Your task to perform on an android device: change the upload size in google photos Image 0: 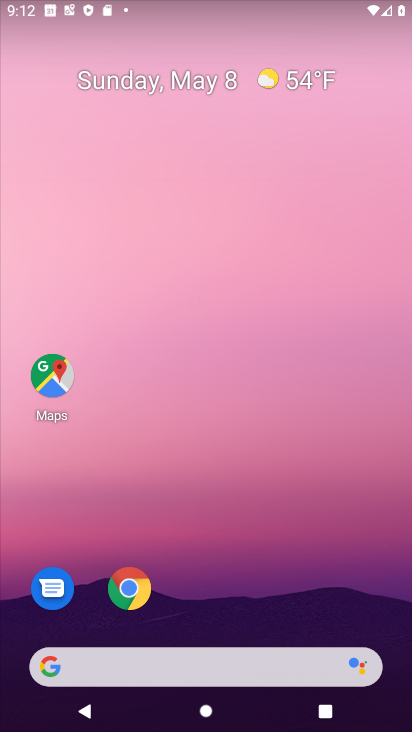
Step 0: drag from (2, 663) to (241, 126)
Your task to perform on an android device: change the upload size in google photos Image 1: 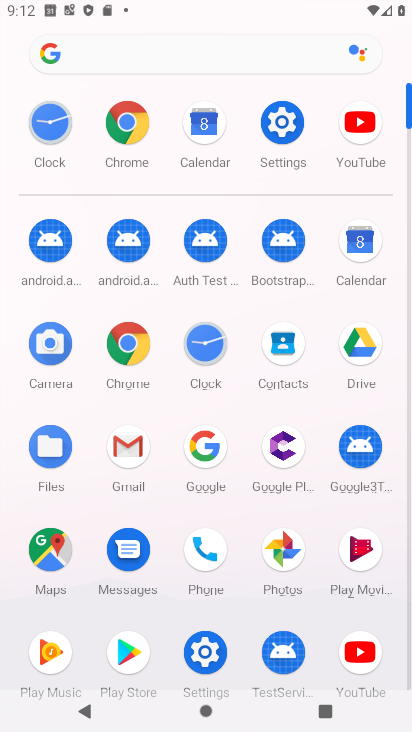
Step 1: click (279, 547)
Your task to perform on an android device: change the upload size in google photos Image 2: 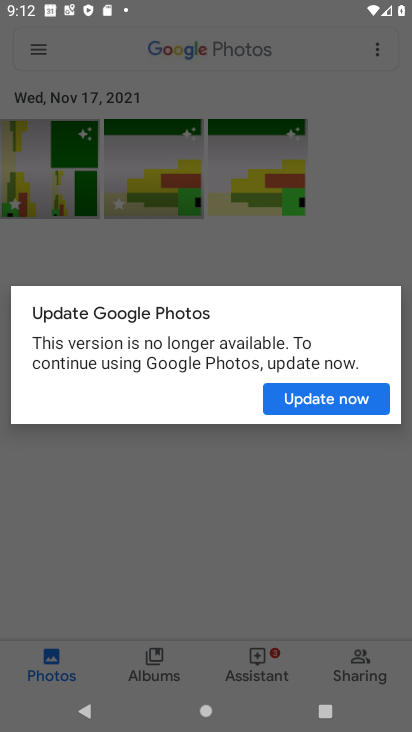
Step 2: click (351, 407)
Your task to perform on an android device: change the upload size in google photos Image 3: 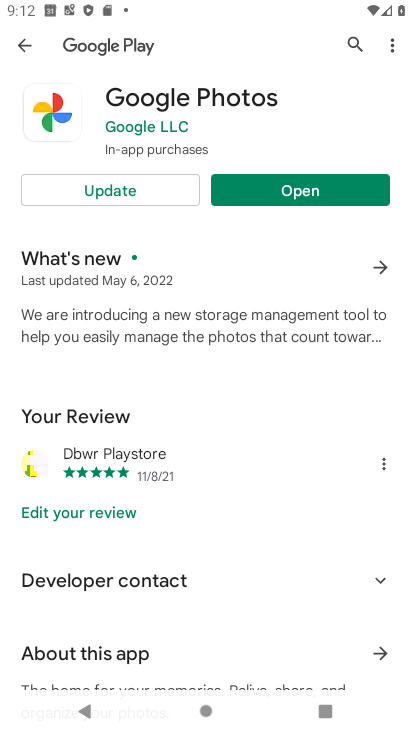
Step 3: click (350, 187)
Your task to perform on an android device: change the upload size in google photos Image 4: 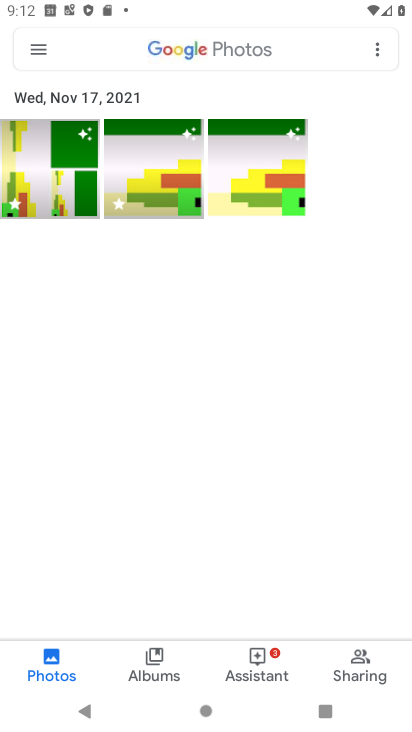
Step 4: click (48, 43)
Your task to perform on an android device: change the upload size in google photos Image 5: 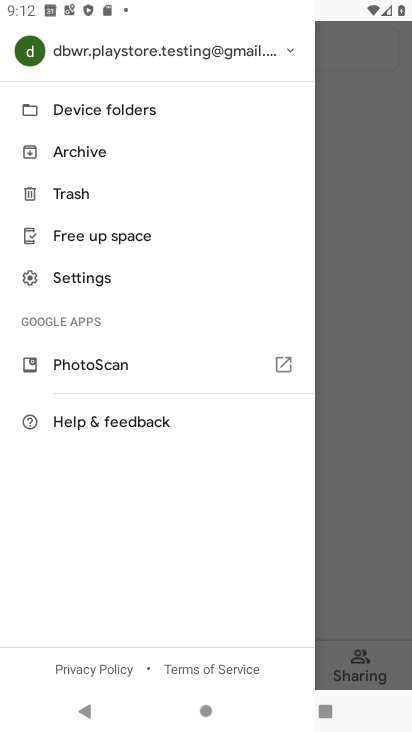
Step 5: click (119, 277)
Your task to perform on an android device: change the upload size in google photos Image 6: 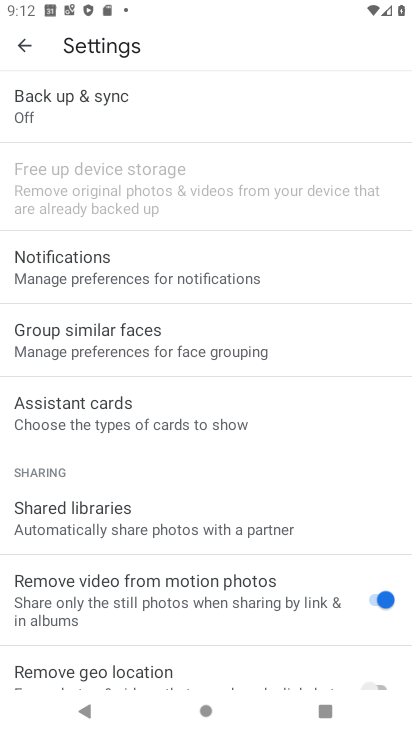
Step 6: click (153, 105)
Your task to perform on an android device: change the upload size in google photos Image 7: 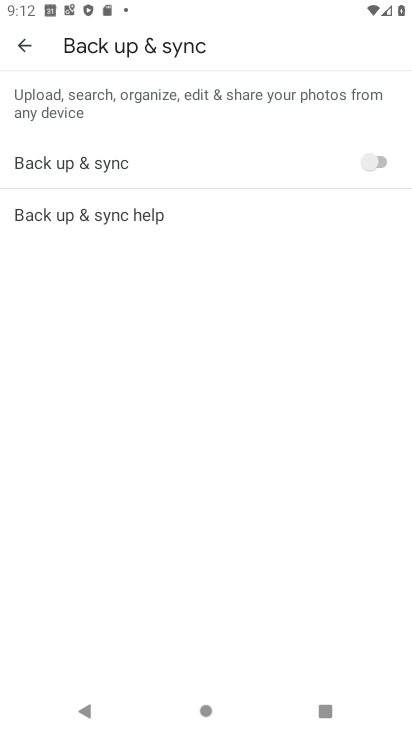
Step 7: click (134, 153)
Your task to perform on an android device: change the upload size in google photos Image 8: 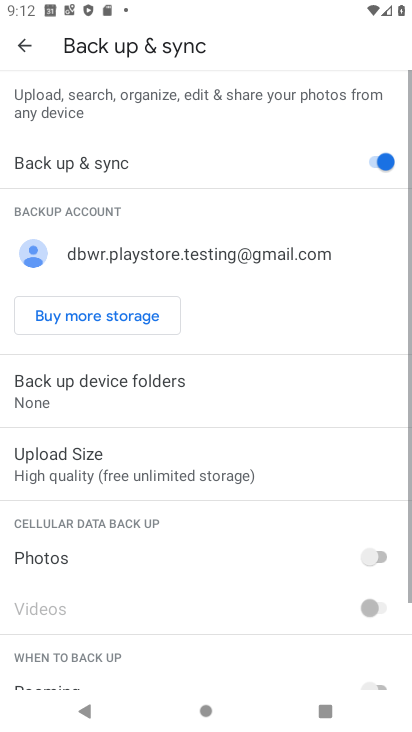
Step 8: click (104, 203)
Your task to perform on an android device: change the upload size in google photos Image 9: 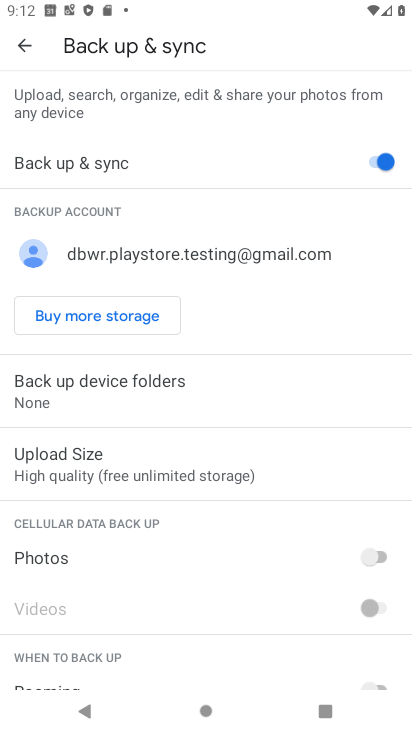
Step 9: click (209, 439)
Your task to perform on an android device: change the upload size in google photos Image 10: 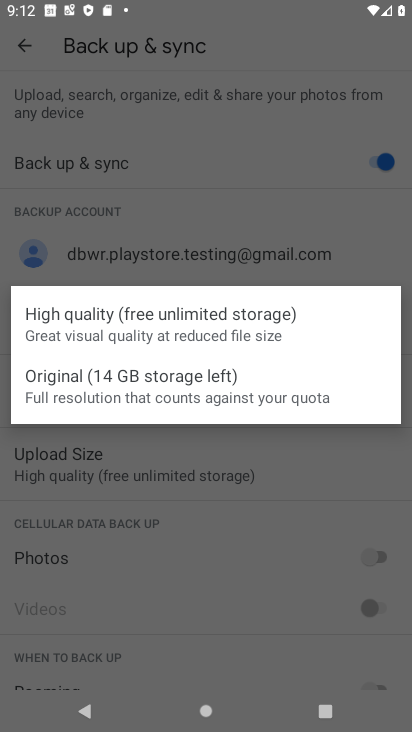
Step 10: click (209, 374)
Your task to perform on an android device: change the upload size in google photos Image 11: 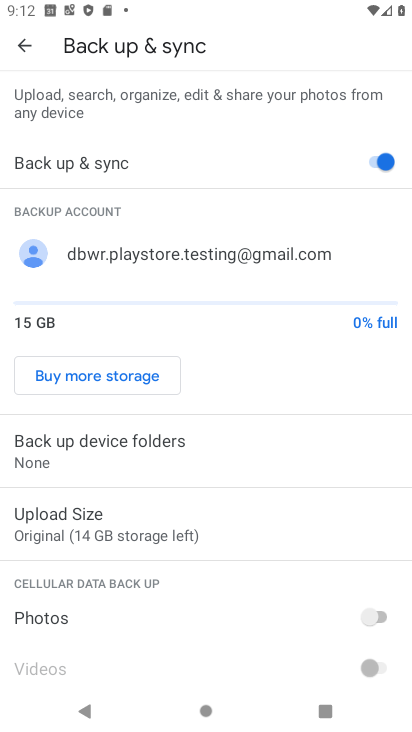
Step 11: task complete